Your task to perform on an android device: Go to ESPN.com Image 0: 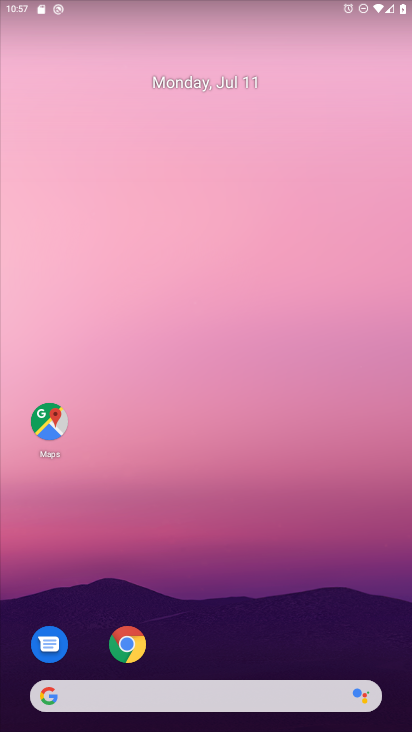
Step 0: drag from (223, 651) to (242, 130)
Your task to perform on an android device: Go to ESPN.com Image 1: 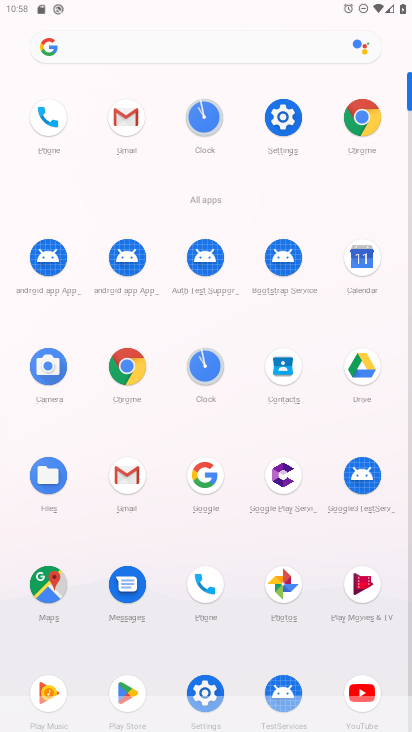
Step 1: click (88, 302)
Your task to perform on an android device: Go to ESPN.com Image 2: 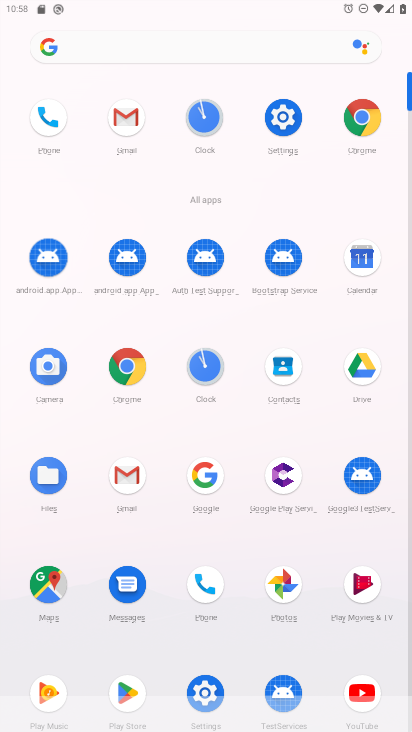
Step 2: click (88, 302)
Your task to perform on an android device: Go to ESPN.com Image 3: 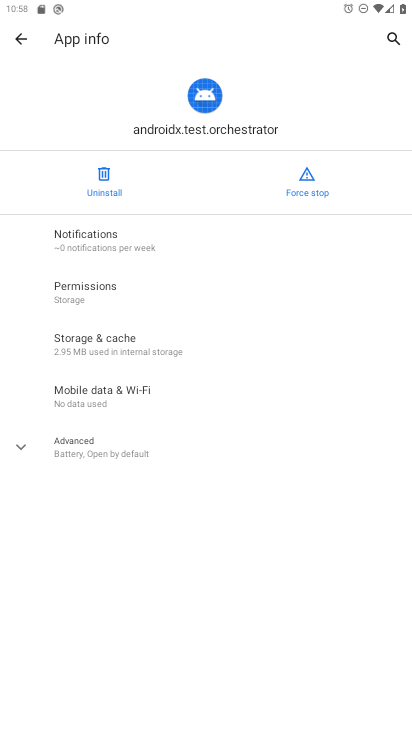
Step 3: click (88, 302)
Your task to perform on an android device: Go to ESPN.com Image 4: 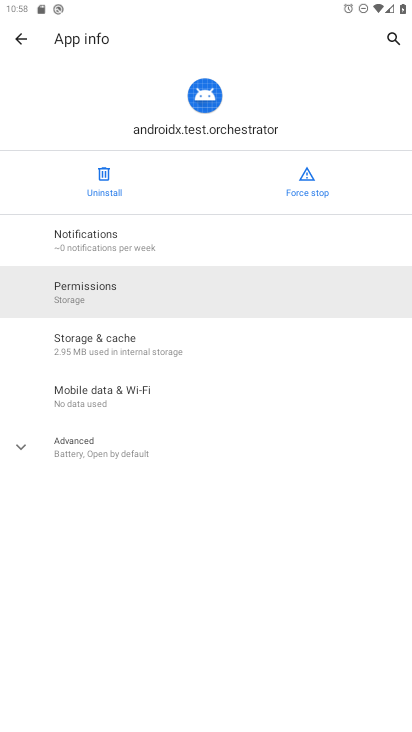
Step 4: click (88, 302)
Your task to perform on an android device: Go to ESPN.com Image 5: 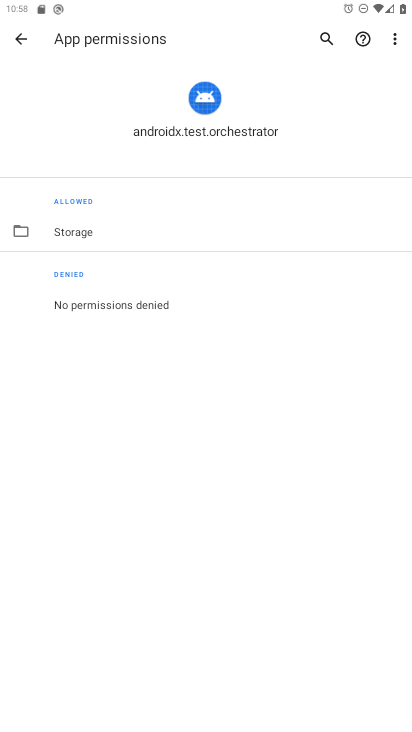
Step 5: click (88, 302)
Your task to perform on an android device: Go to ESPN.com Image 6: 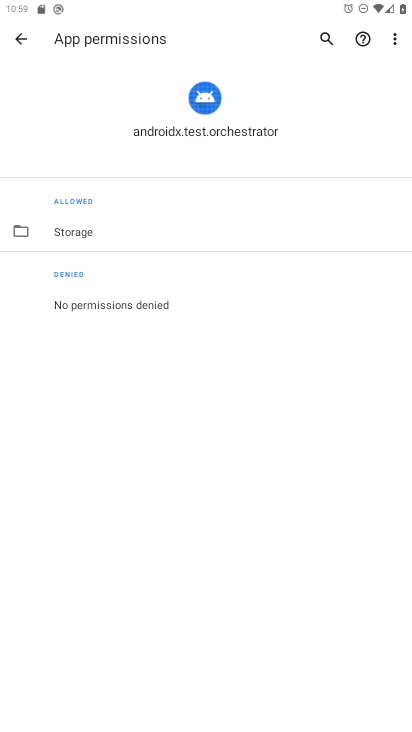
Step 6: press home button
Your task to perform on an android device: Go to ESPN.com Image 7: 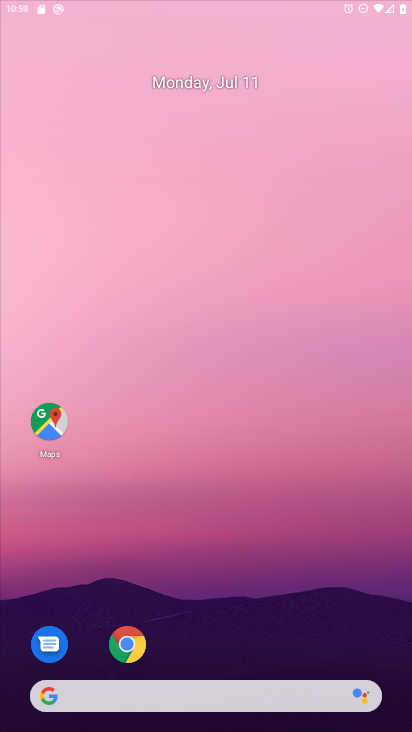
Step 7: click (280, 26)
Your task to perform on an android device: Go to ESPN.com Image 8: 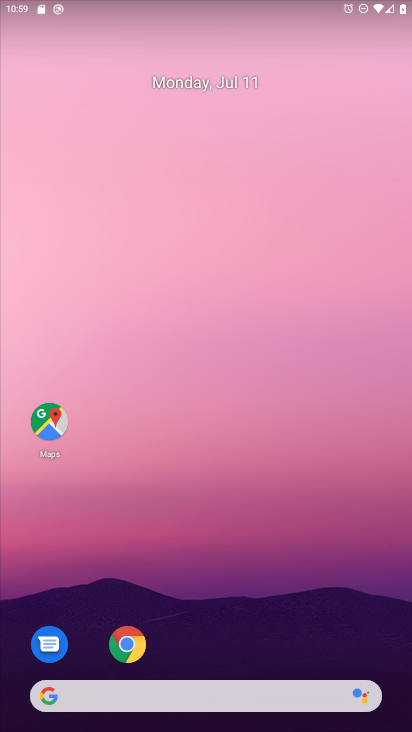
Step 8: click (118, 670)
Your task to perform on an android device: Go to ESPN.com Image 9: 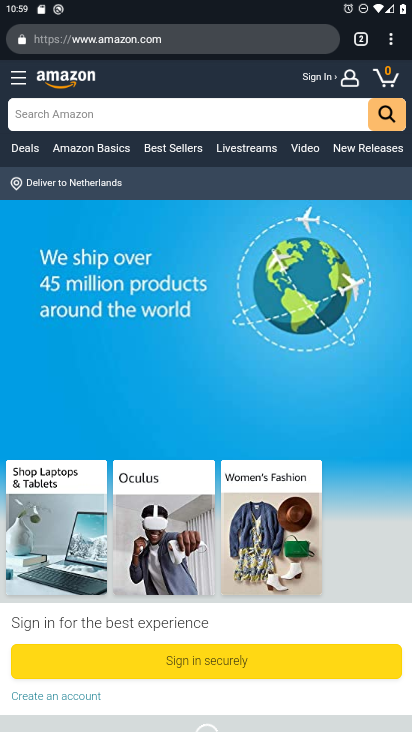
Step 9: click (219, 45)
Your task to perform on an android device: Go to ESPN.com Image 10: 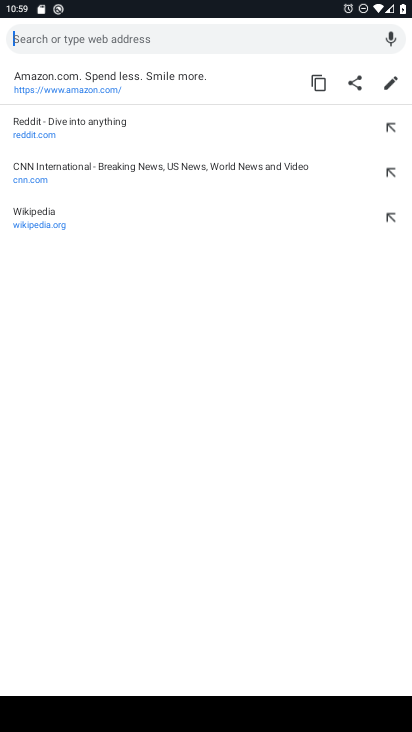
Step 10: type "ESPN.com"
Your task to perform on an android device: Go to ESPN.com Image 11: 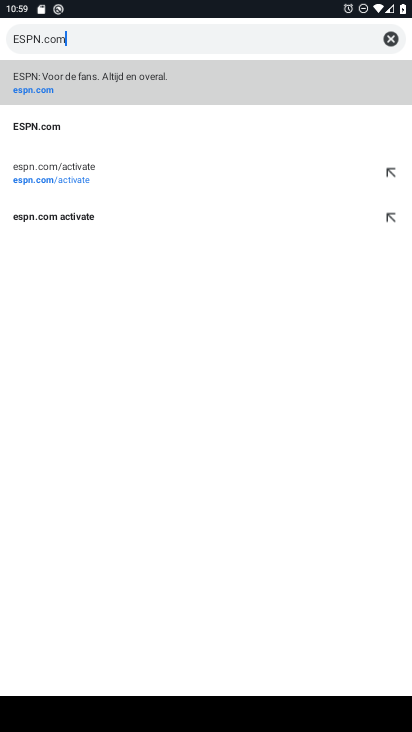
Step 11: type ""
Your task to perform on an android device: Go to ESPN.com Image 12: 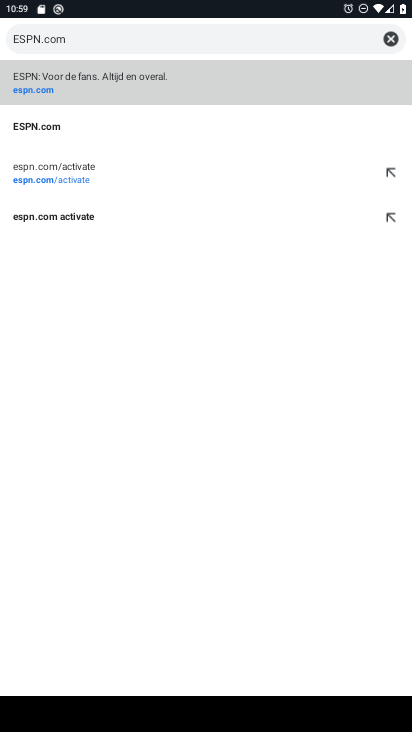
Step 12: click (88, 84)
Your task to perform on an android device: Go to ESPN.com Image 13: 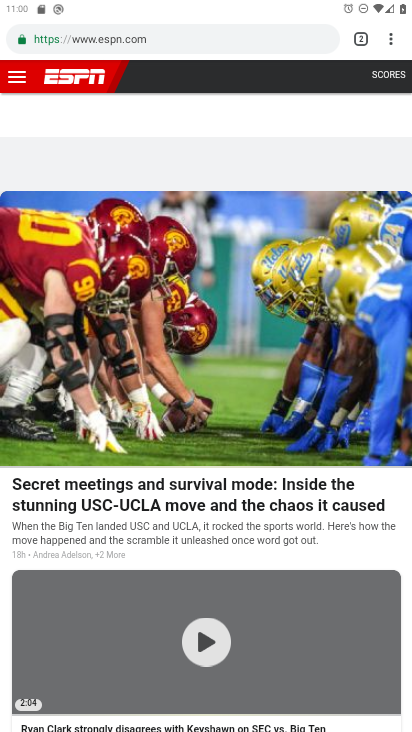
Step 13: task complete